Your task to perform on an android device: turn notification dots on Image 0: 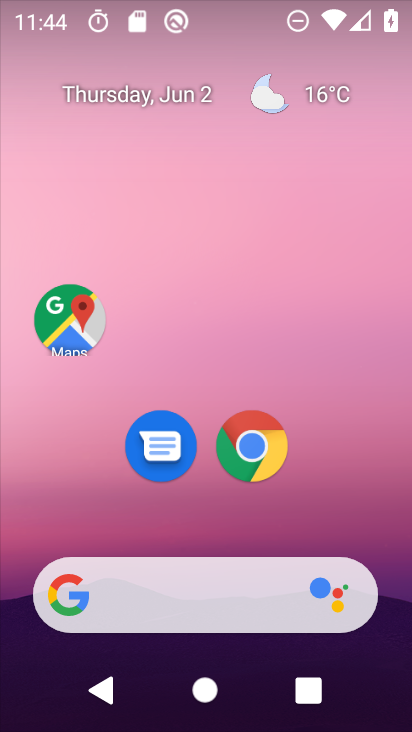
Step 0: drag from (370, 484) to (371, 155)
Your task to perform on an android device: turn notification dots on Image 1: 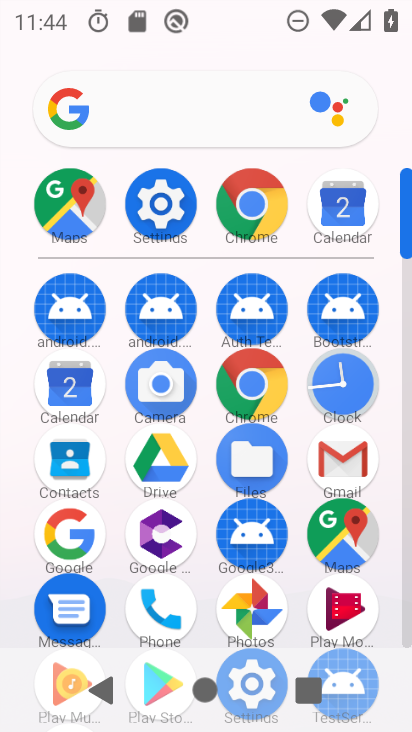
Step 1: click (179, 221)
Your task to perform on an android device: turn notification dots on Image 2: 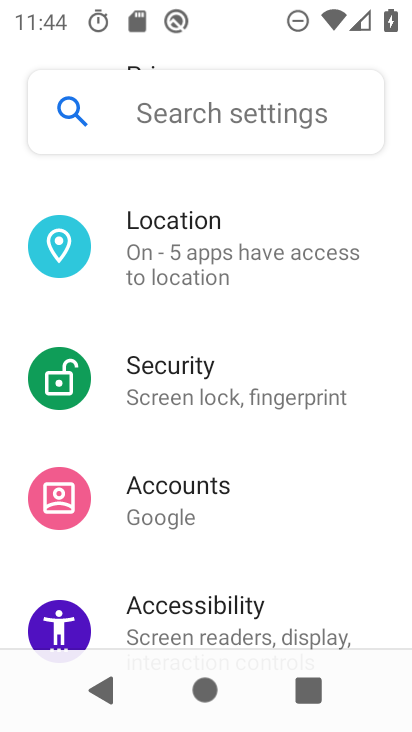
Step 2: drag from (342, 500) to (351, 389)
Your task to perform on an android device: turn notification dots on Image 3: 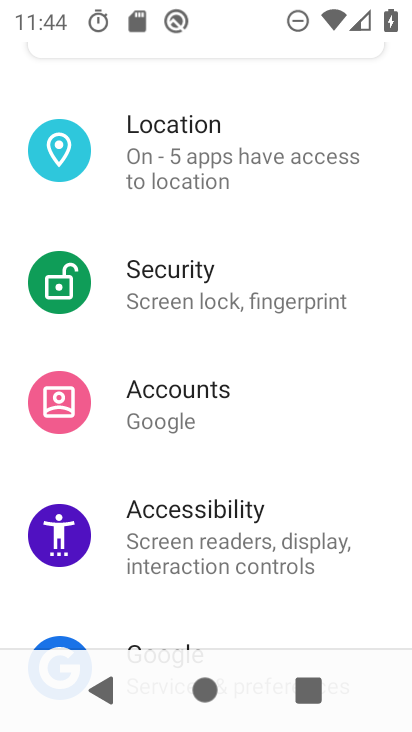
Step 3: drag from (356, 572) to (359, 432)
Your task to perform on an android device: turn notification dots on Image 4: 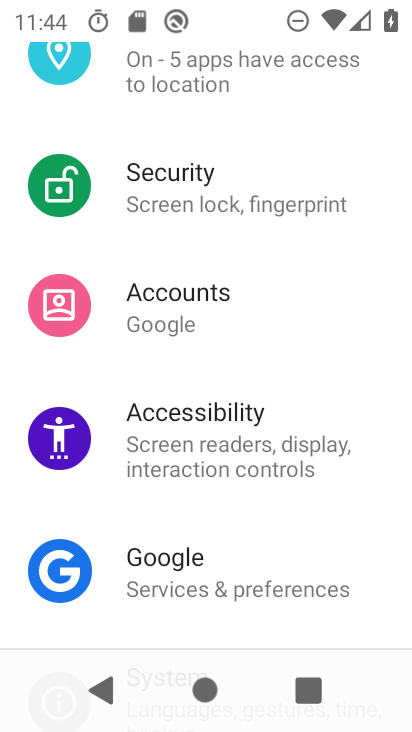
Step 4: drag from (350, 338) to (370, 507)
Your task to perform on an android device: turn notification dots on Image 5: 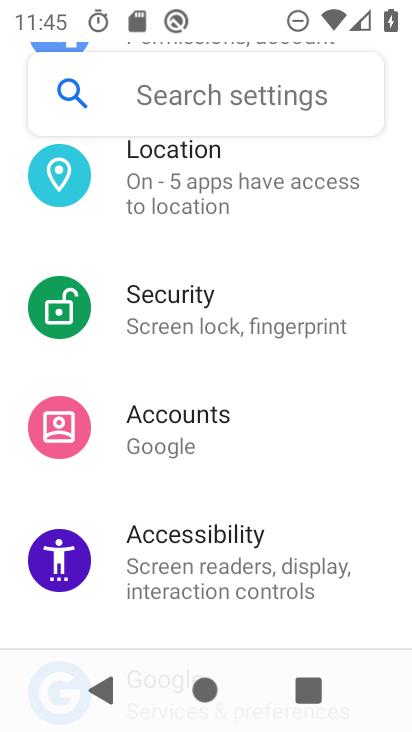
Step 5: drag from (368, 272) to (367, 411)
Your task to perform on an android device: turn notification dots on Image 6: 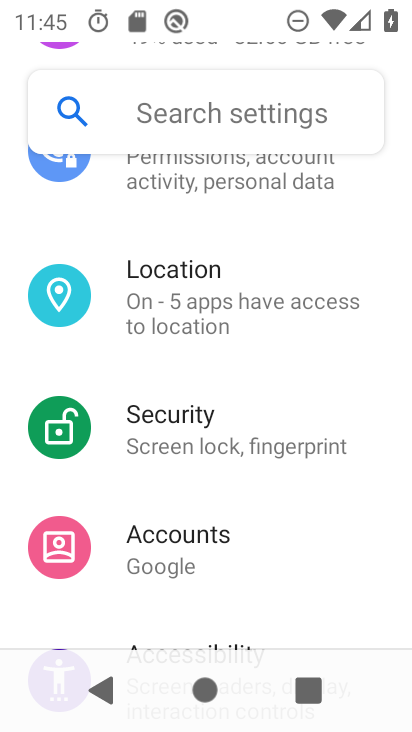
Step 6: drag from (362, 268) to (364, 463)
Your task to perform on an android device: turn notification dots on Image 7: 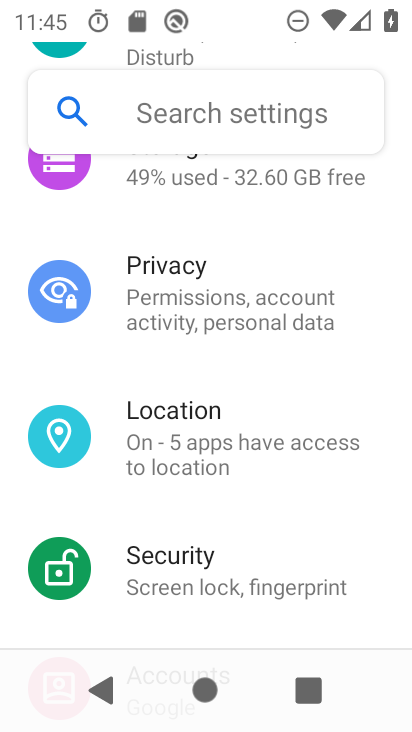
Step 7: drag from (361, 257) to (367, 425)
Your task to perform on an android device: turn notification dots on Image 8: 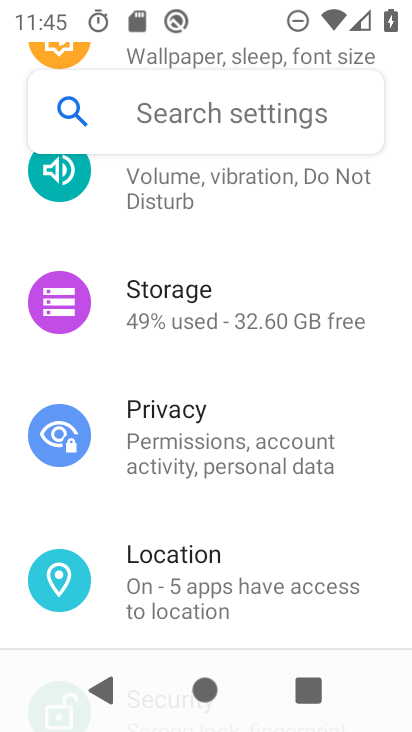
Step 8: drag from (365, 232) to (362, 412)
Your task to perform on an android device: turn notification dots on Image 9: 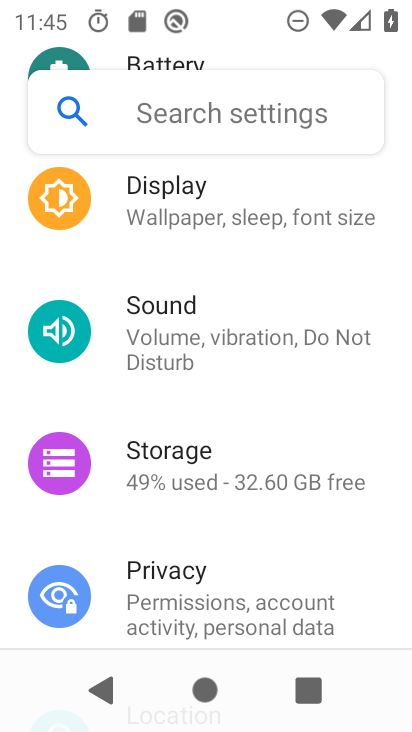
Step 9: drag from (361, 275) to (345, 463)
Your task to perform on an android device: turn notification dots on Image 10: 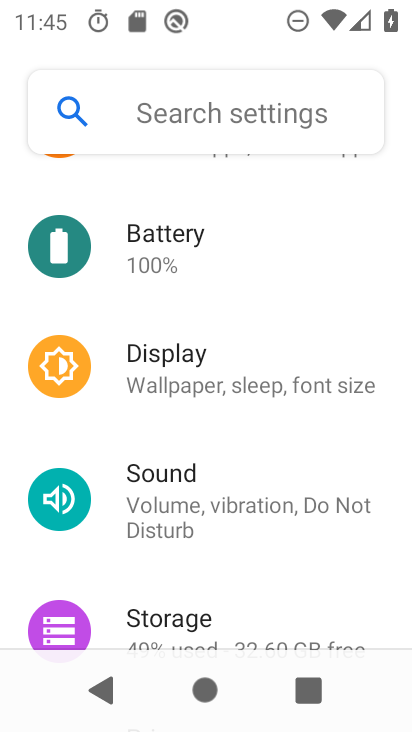
Step 10: drag from (347, 213) to (339, 403)
Your task to perform on an android device: turn notification dots on Image 11: 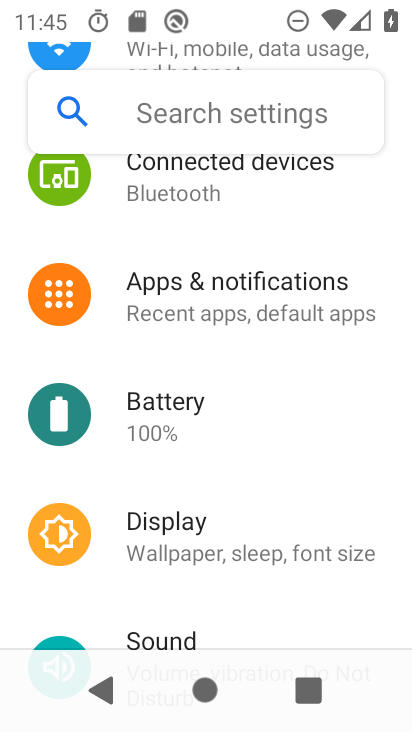
Step 11: click (289, 306)
Your task to perform on an android device: turn notification dots on Image 12: 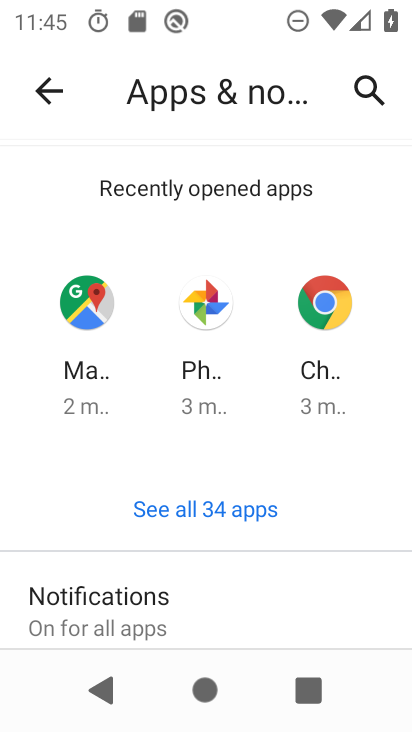
Step 12: drag from (335, 557) to (353, 377)
Your task to perform on an android device: turn notification dots on Image 13: 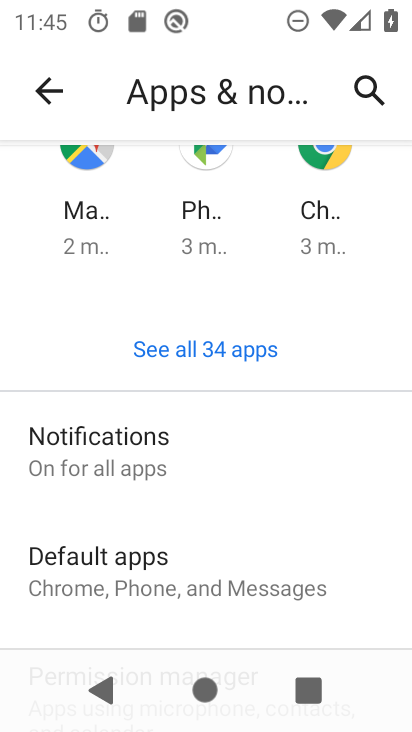
Step 13: drag from (337, 512) to (362, 211)
Your task to perform on an android device: turn notification dots on Image 14: 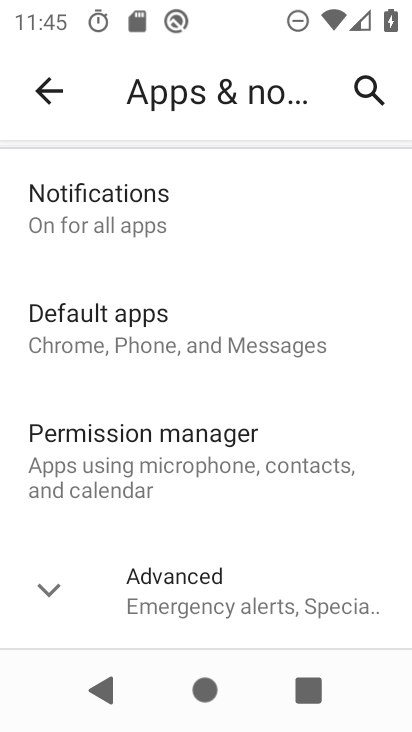
Step 14: click (180, 227)
Your task to perform on an android device: turn notification dots on Image 15: 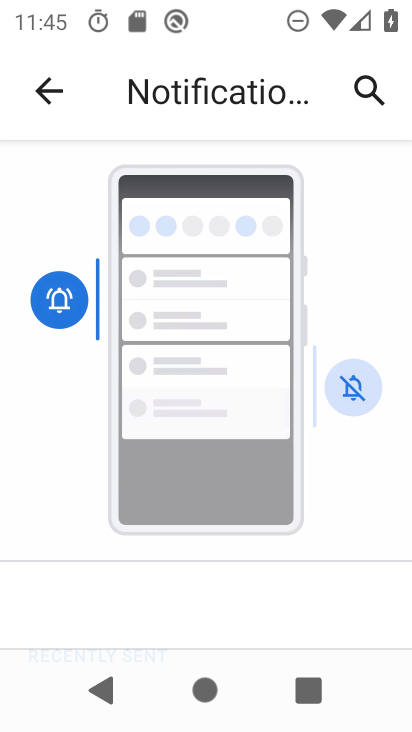
Step 15: drag from (325, 494) to (326, 230)
Your task to perform on an android device: turn notification dots on Image 16: 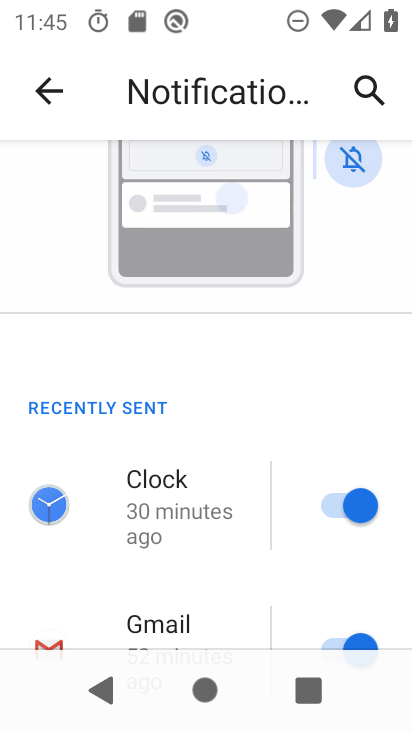
Step 16: drag from (232, 551) to (241, 260)
Your task to perform on an android device: turn notification dots on Image 17: 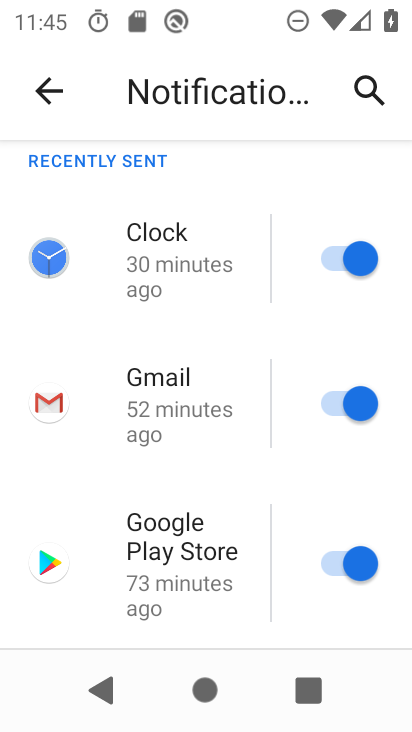
Step 17: drag from (246, 517) to (243, 247)
Your task to perform on an android device: turn notification dots on Image 18: 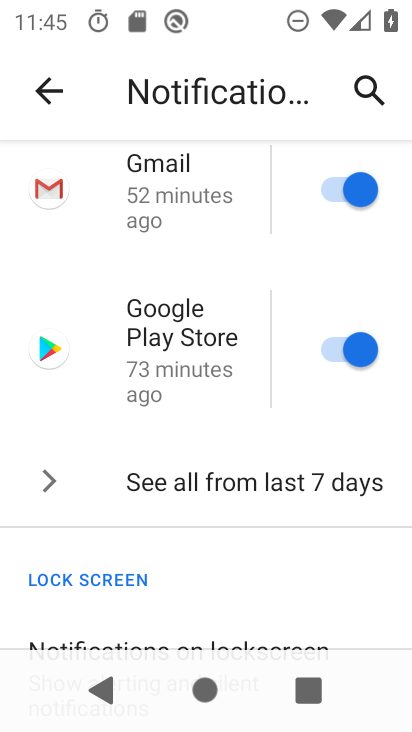
Step 18: drag from (231, 541) to (236, 330)
Your task to perform on an android device: turn notification dots on Image 19: 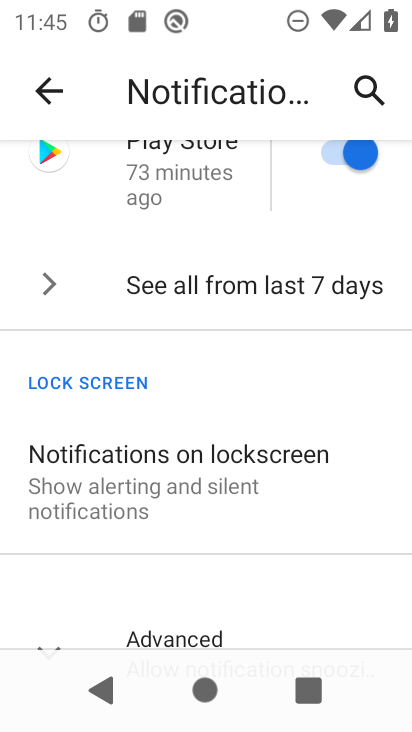
Step 19: drag from (249, 535) to (256, 318)
Your task to perform on an android device: turn notification dots on Image 20: 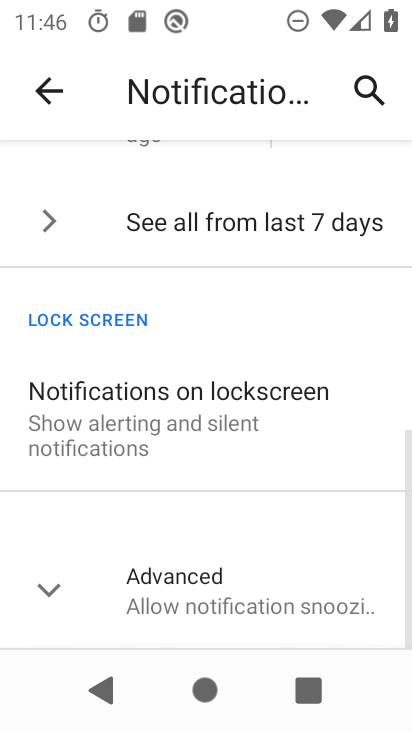
Step 20: click (243, 587)
Your task to perform on an android device: turn notification dots on Image 21: 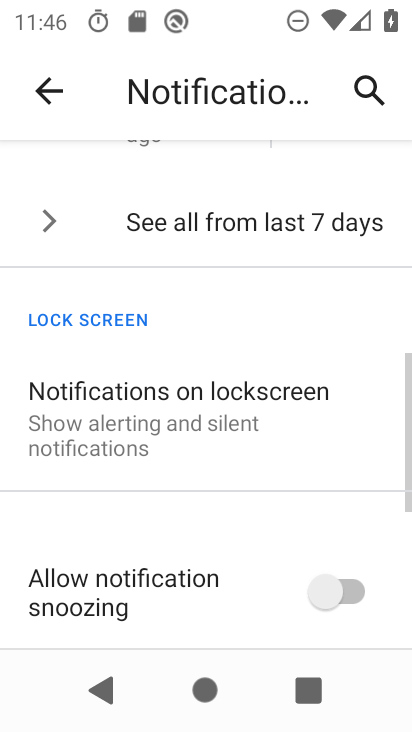
Step 21: task complete